Your task to perform on an android device: make emails show in primary in the gmail app Image 0: 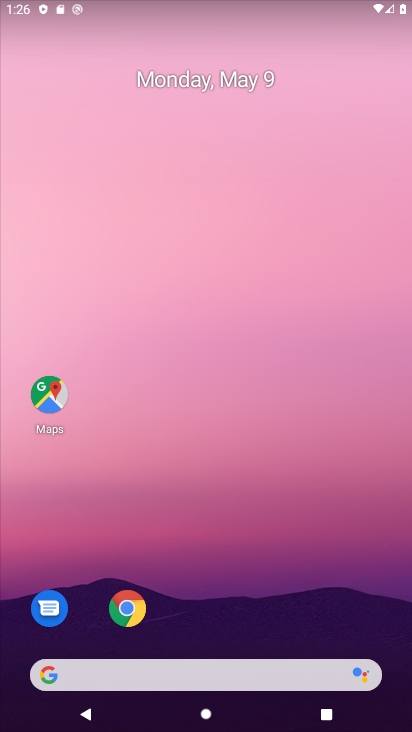
Step 0: drag from (186, 599) to (143, 0)
Your task to perform on an android device: make emails show in primary in the gmail app Image 1: 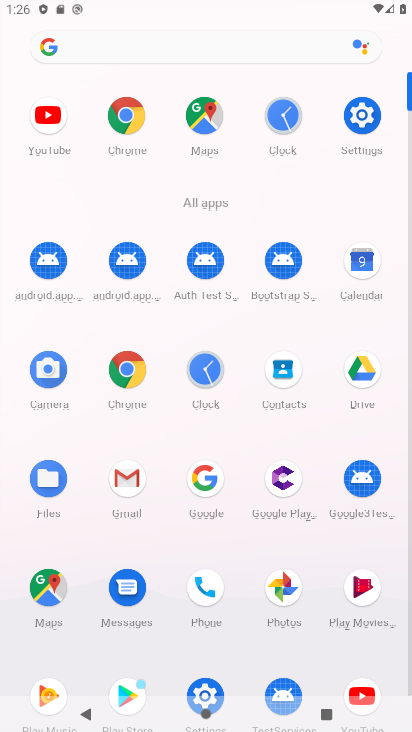
Step 1: click (106, 479)
Your task to perform on an android device: make emails show in primary in the gmail app Image 2: 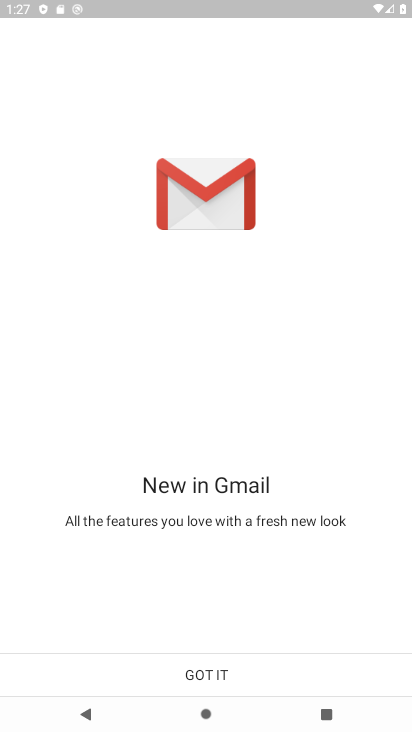
Step 2: click (214, 684)
Your task to perform on an android device: make emails show in primary in the gmail app Image 3: 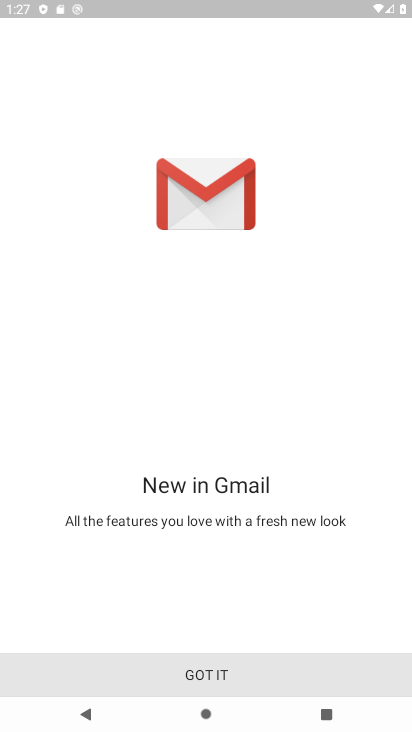
Step 3: click (214, 684)
Your task to perform on an android device: make emails show in primary in the gmail app Image 4: 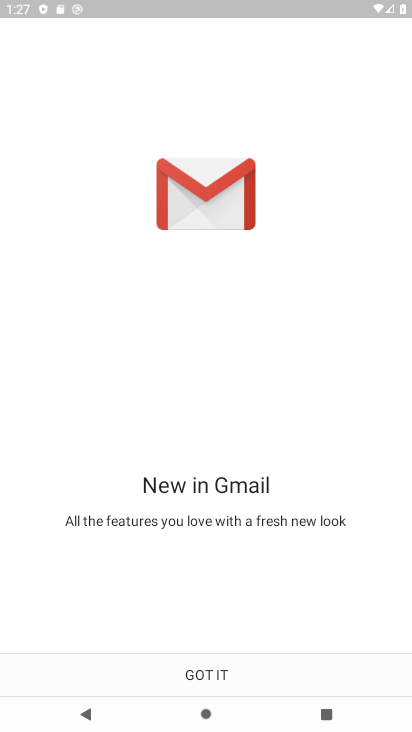
Step 4: click (214, 684)
Your task to perform on an android device: make emails show in primary in the gmail app Image 5: 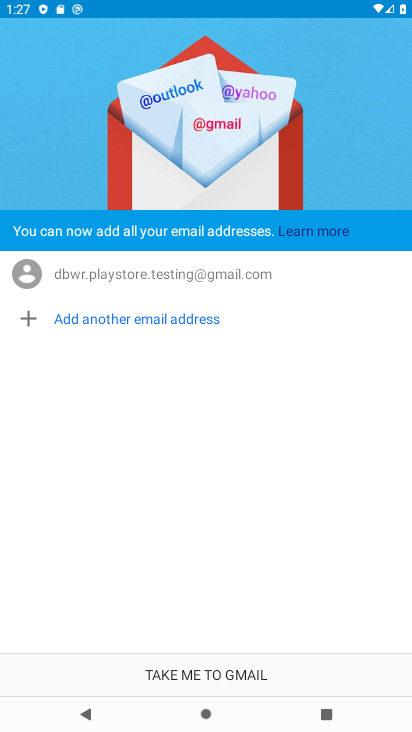
Step 5: click (214, 684)
Your task to perform on an android device: make emails show in primary in the gmail app Image 6: 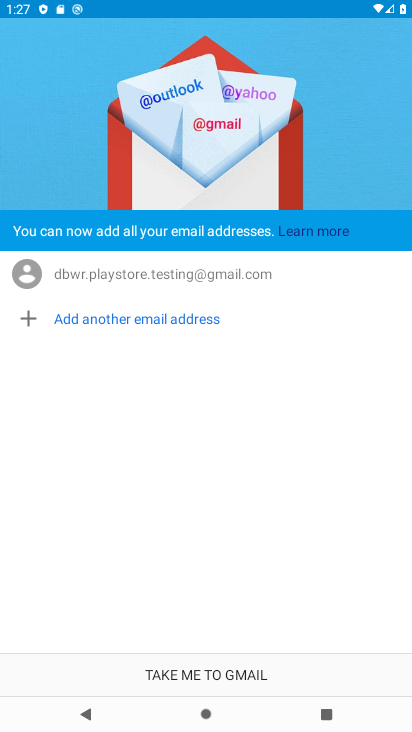
Step 6: click (214, 684)
Your task to perform on an android device: make emails show in primary in the gmail app Image 7: 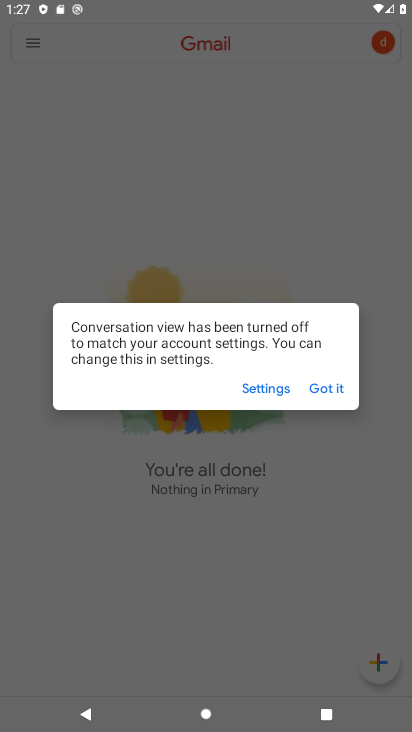
Step 7: click (318, 401)
Your task to perform on an android device: make emails show in primary in the gmail app Image 8: 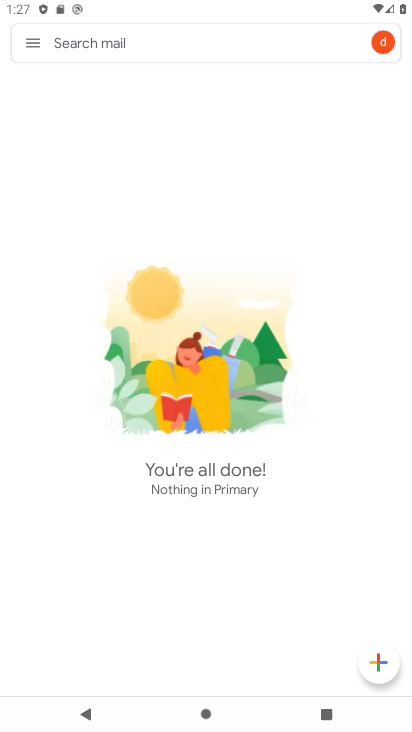
Step 8: click (44, 41)
Your task to perform on an android device: make emails show in primary in the gmail app Image 9: 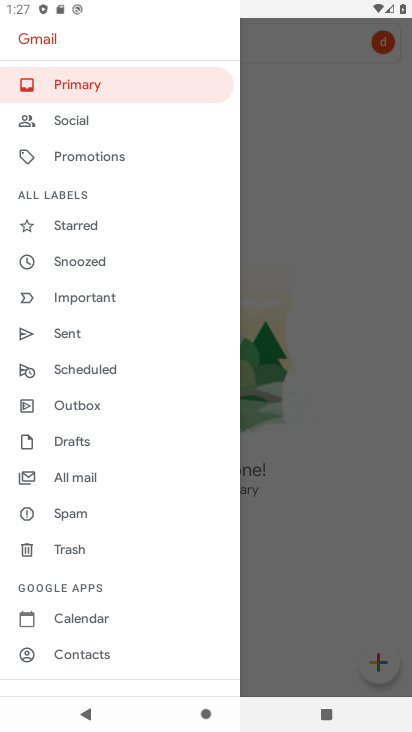
Step 9: task complete